Your task to perform on an android device: set an alarm Image 0: 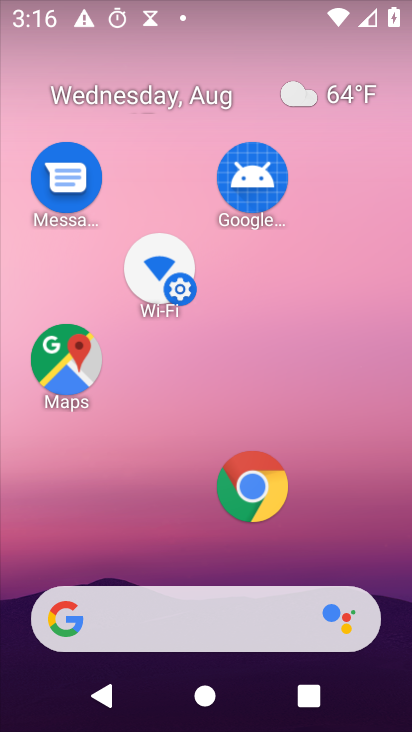
Step 0: press home button
Your task to perform on an android device: set an alarm Image 1: 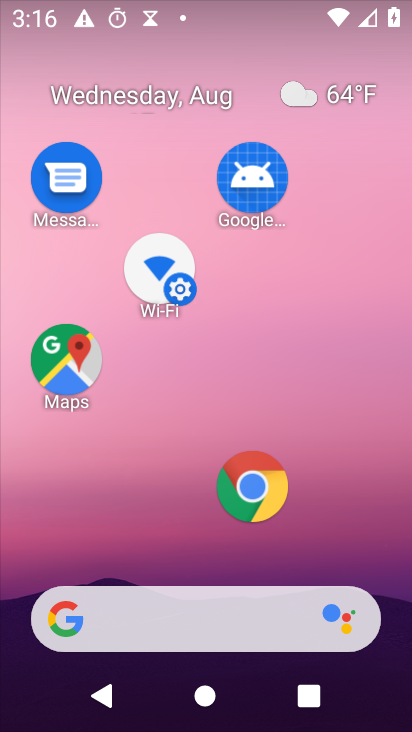
Step 1: drag from (369, 462) to (405, 36)
Your task to perform on an android device: set an alarm Image 2: 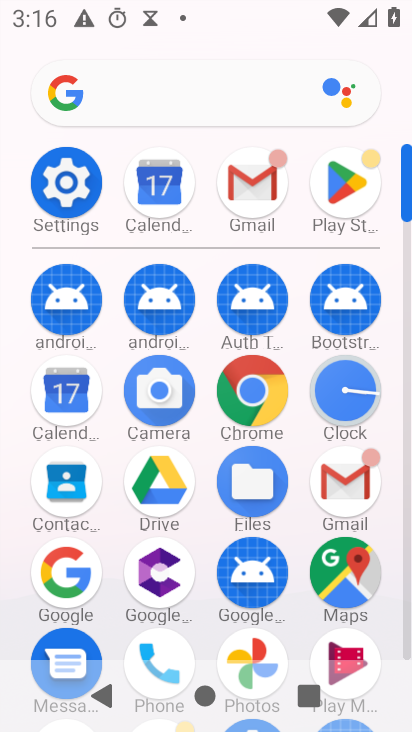
Step 2: click (340, 402)
Your task to perform on an android device: set an alarm Image 3: 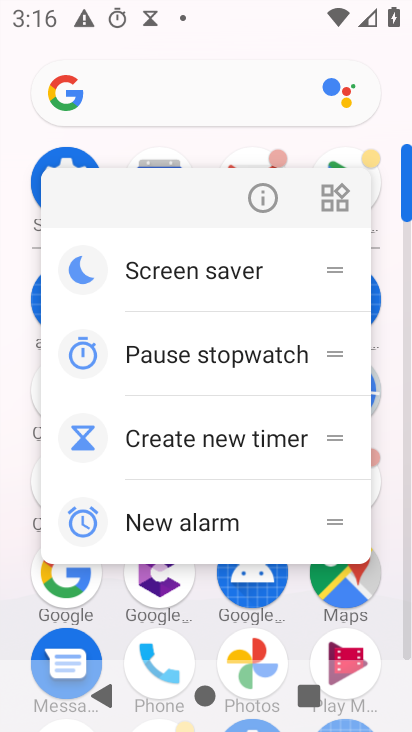
Step 3: click (398, 425)
Your task to perform on an android device: set an alarm Image 4: 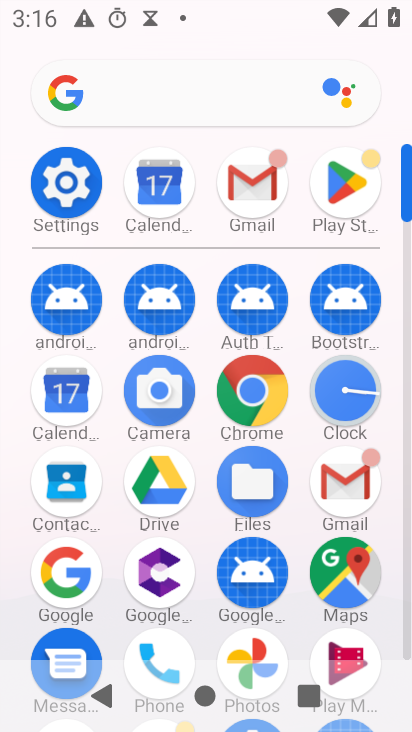
Step 4: click (343, 406)
Your task to perform on an android device: set an alarm Image 5: 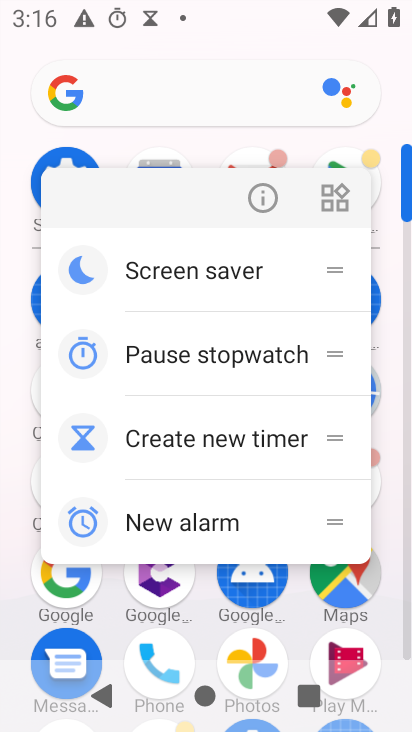
Step 5: click (388, 489)
Your task to perform on an android device: set an alarm Image 6: 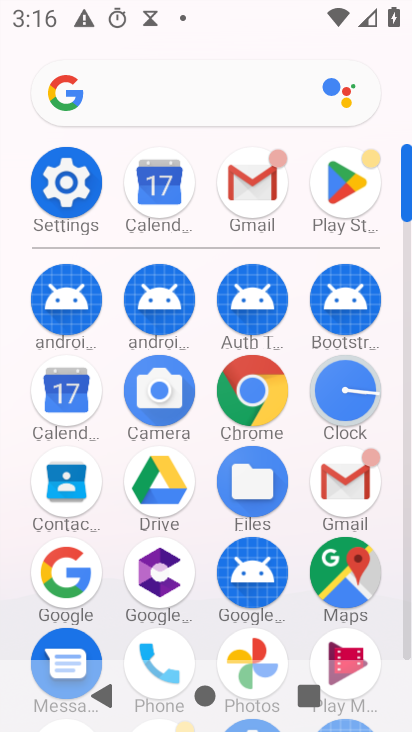
Step 6: click (346, 373)
Your task to perform on an android device: set an alarm Image 7: 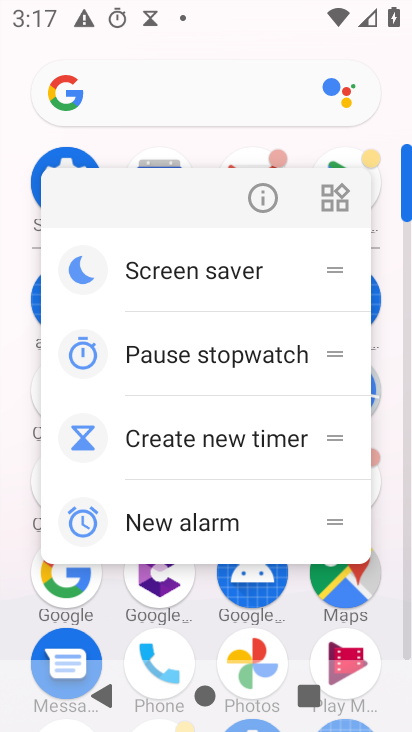
Step 7: click (396, 489)
Your task to perform on an android device: set an alarm Image 8: 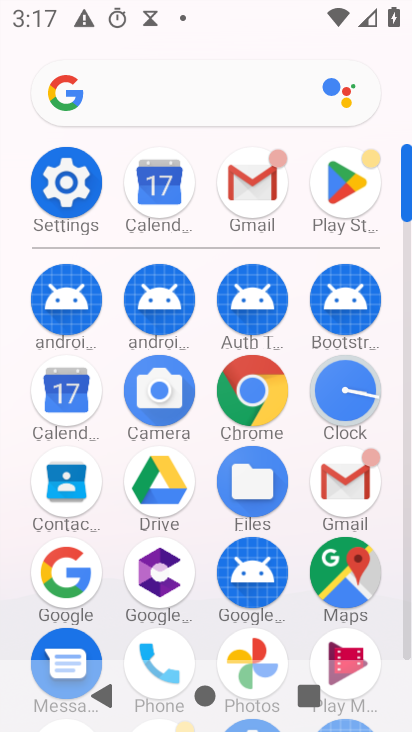
Step 8: click (342, 380)
Your task to perform on an android device: set an alarm Image 9: 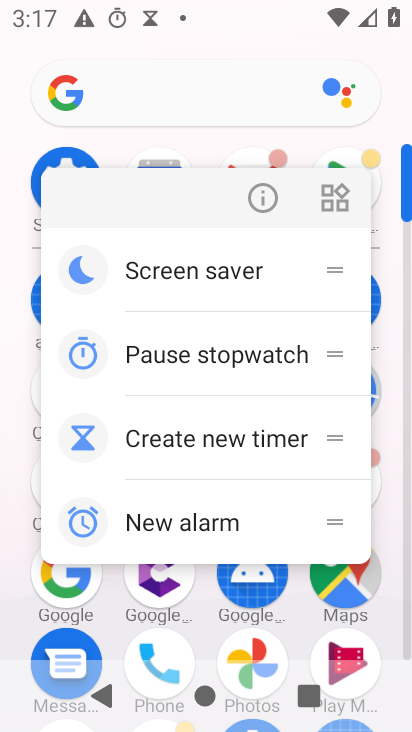
Step 9: click (398, 548)
Your task to perform on an android device: set an alarm Image 10: 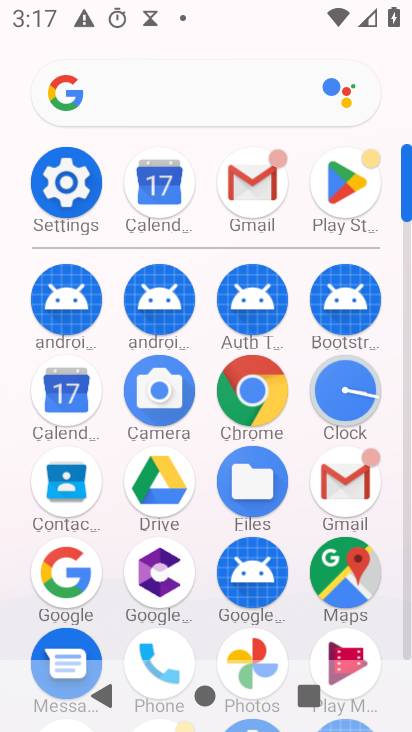
Step 10: click (326, 387)
Your task to perform on an android device: set an alarm Image 11: 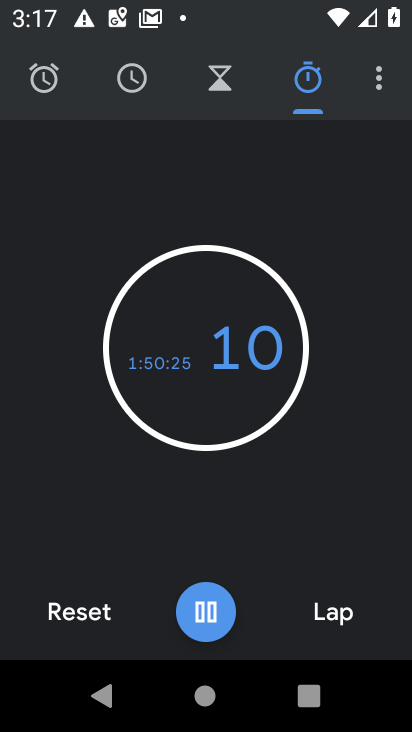
Step 11: click (45, 80)
Your task to perform on an android device: set an alarm Image 12: 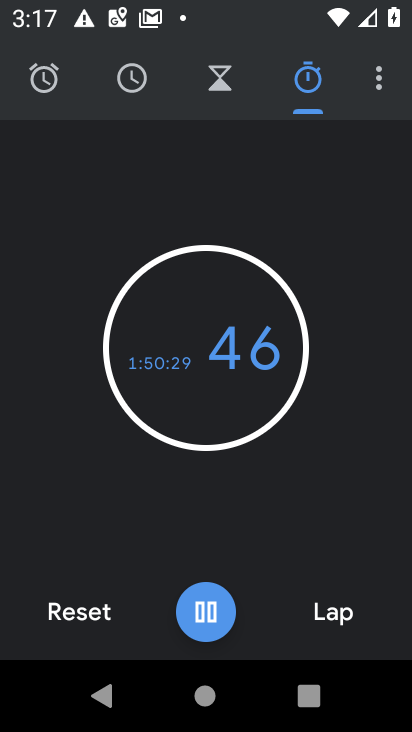
Step 12: click (45, 80)
Your task to perform on an android device: set an alarm Image 13: 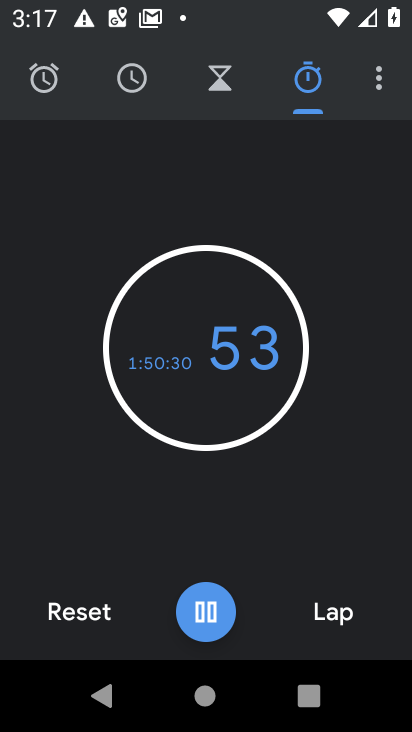
Step 13: click (45, 80)
Your task to perform on an android device: set an alarm Image 14: 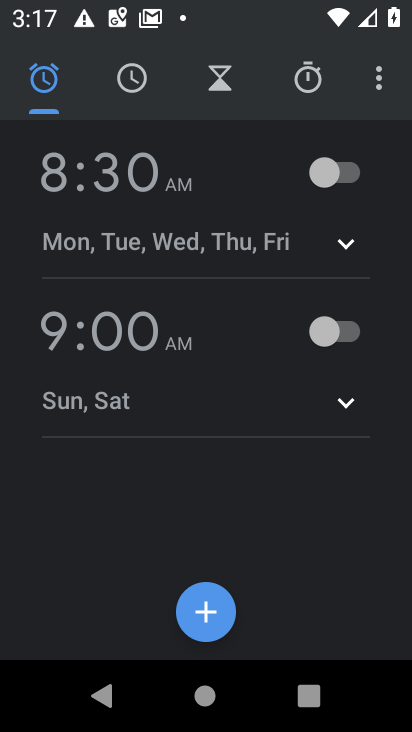
Step 14: click (351, 187)
Your task to perform on an android device: set an alarm Image 15: 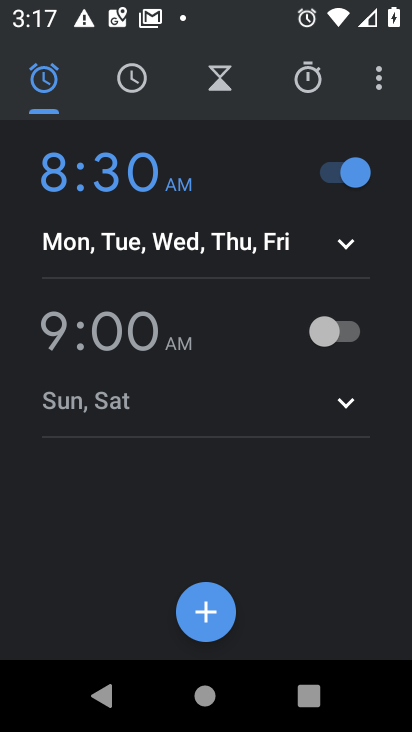
Step 15: task complete